Your task to perform on an android device: turn vacation reply on in the gmail app Image 0: 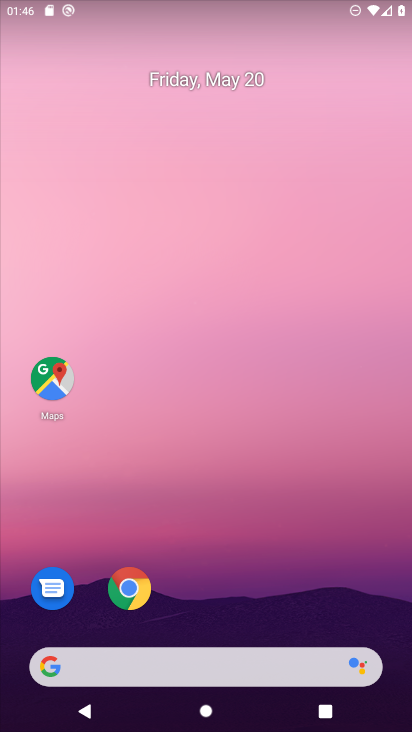
Step 0: drag from (390, 605) to (315, 102)
Your task to perform on an android device: turn vacation reply on in the gmail app Image 1: 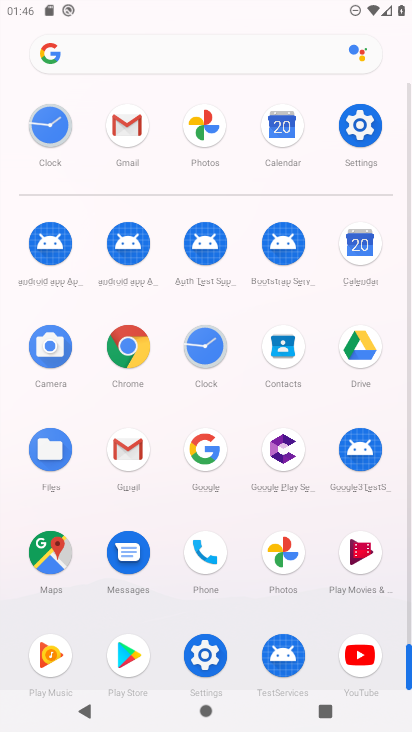
Step 1: click (127, 450)
Your task to perform on an android device: turn vacation reply on in the gmail app Image 2: 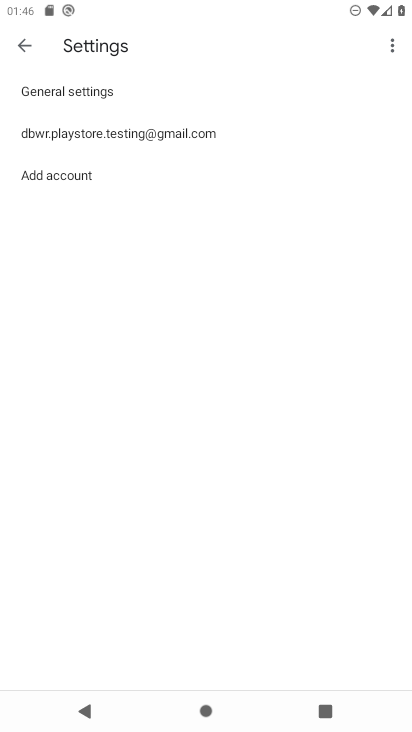
Step 2: click (116, 122)
Your task to perform on an android device: turn vacation reply on in the gmail app Image 3: 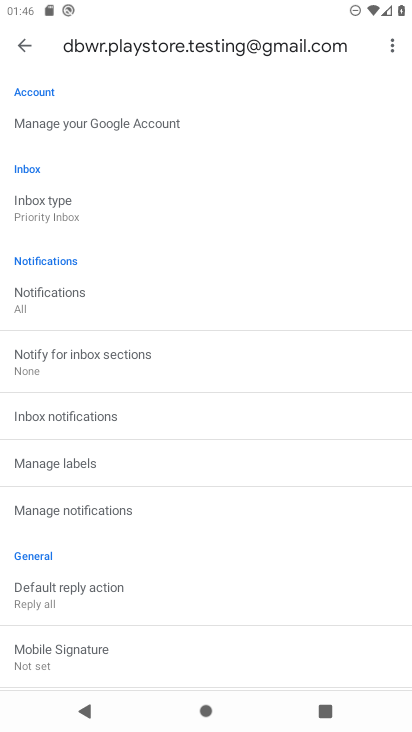
Step 3: drag from (186, 549) to (228, 186)
Your task to perform on an android device: turn vacation reply on in the gmail app Image 4: 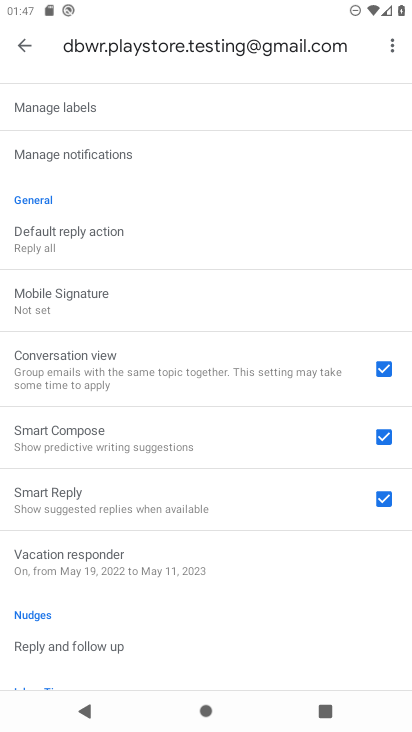
Step 4: click (105, 562)
Your task to perform on an android device: turn vacation reply on in the gmail app Image 5: 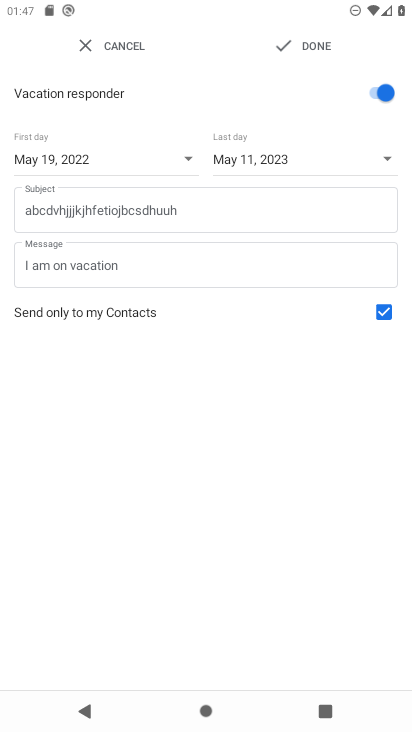
Step 5: task complete